Your task to perform on an android device: snooze an email in the gmail app Image 0: 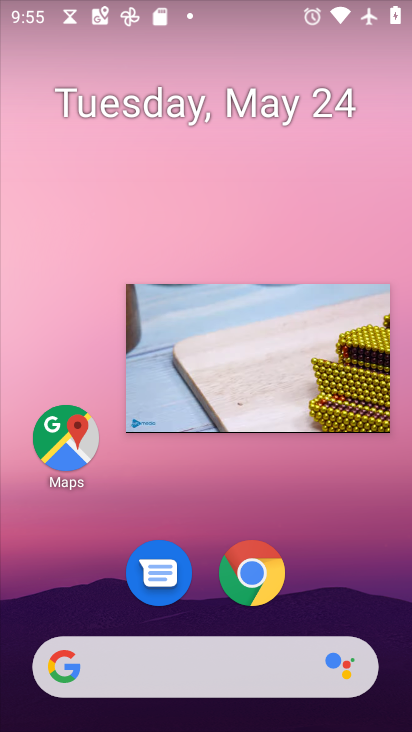
Step 0: click (359, 304)
Your task to perform on an android device: snooze an email in the gmail app Image 1: 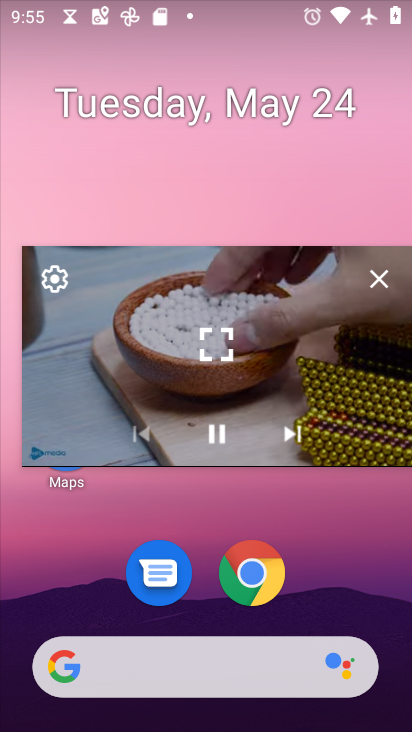
Step 1: click (374, 310)
Your task to perform on an android device: snooze an email in the gmail app Image 2: 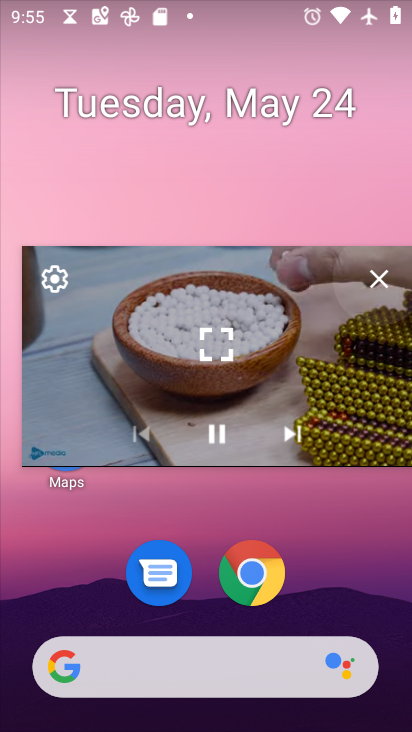
Step 2: click (366, 273)
Your task to perform on an android device: snooze an email in the gmail app Image 3: 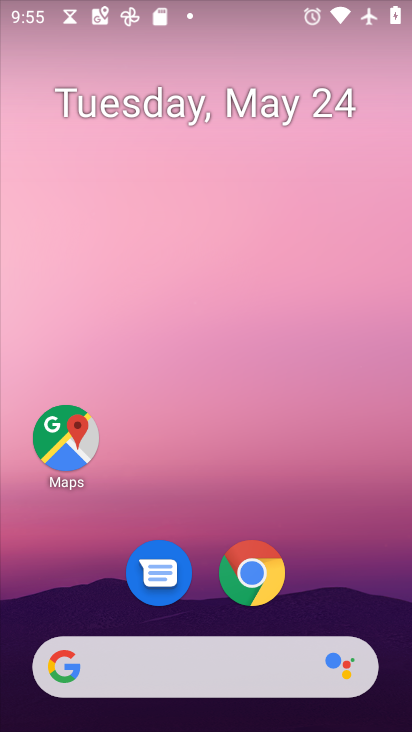
Step 3: drag from (349, 575) to (326, 86)
Your task to perform on an android device: snooze an email in the gmail app Image 4: 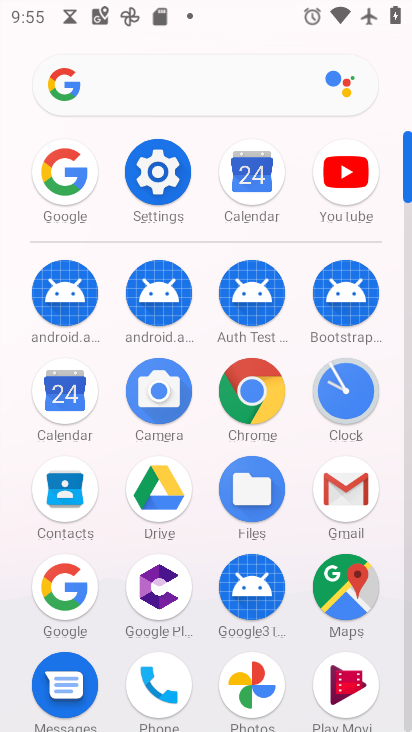
Step 4: click (357, 484)
Your task to perform on an android device: snooze an email in the gmail app Image 5: 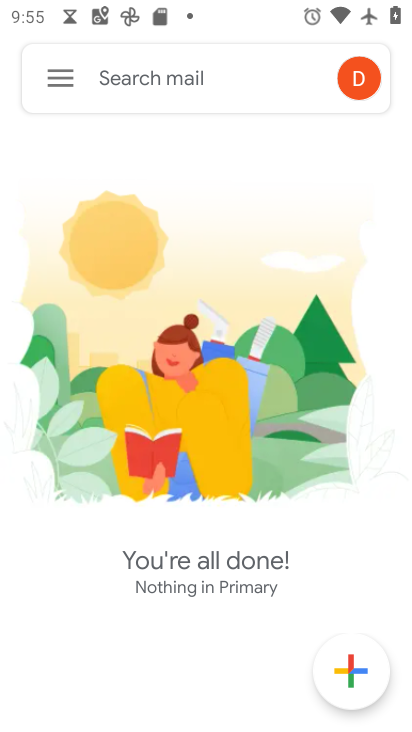
Step 5: click (62, 87)
Your task to perform on an android device: snooze an email in the gmail app Image 6: 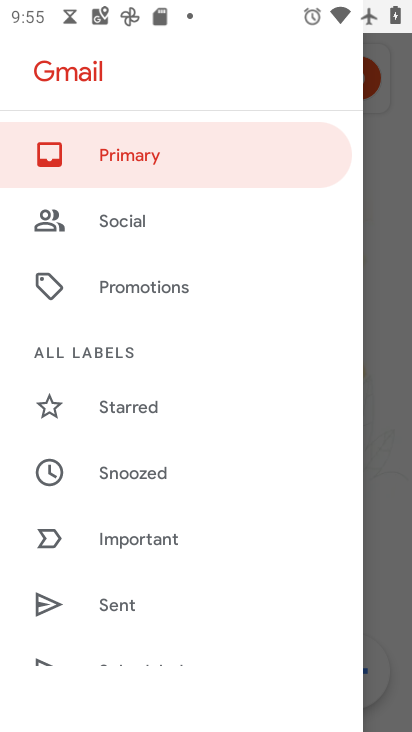
Step 6: drag from (178, 601) to (147, 164)
Your task to perform on an android device: snooze an email in the gmail app Image 7: 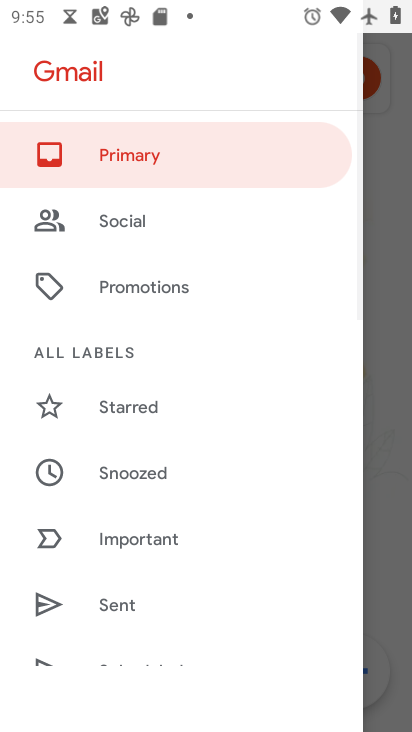
Step 7: drag from (176, 592) to (172, 65)
Your task to perform on an android device: snooze an email in the gmail app Image 8: 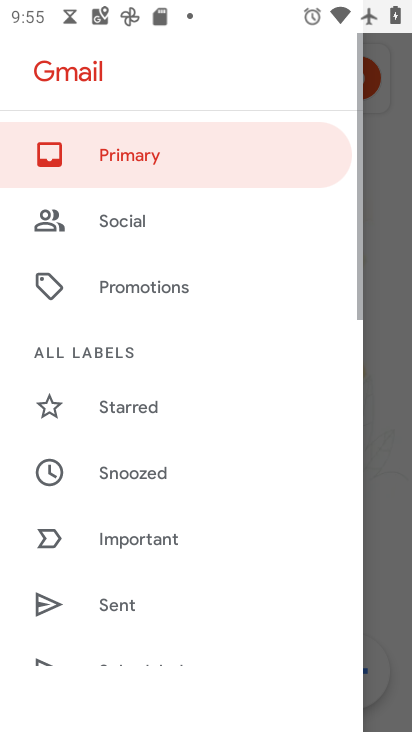
Step 8: drag from (158, 586) to (125, 70)
Your task to perform on an android device: snooze an email in the gmail app Image 9: 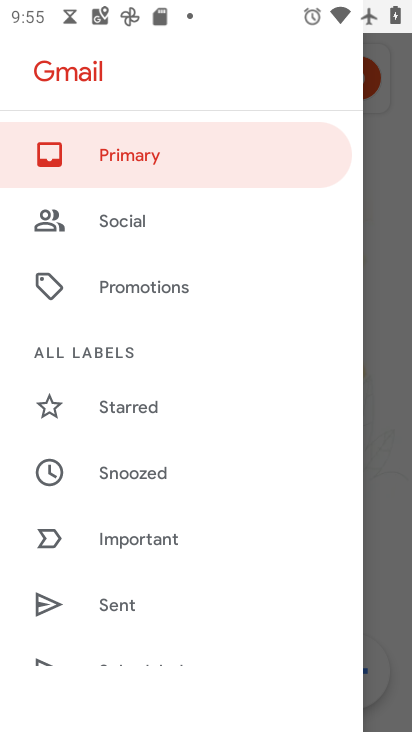
Step 9: drag from (100, 616) to (60, 175)
Your task to perform on an android device: snooze an email in the gmail app Image 10: 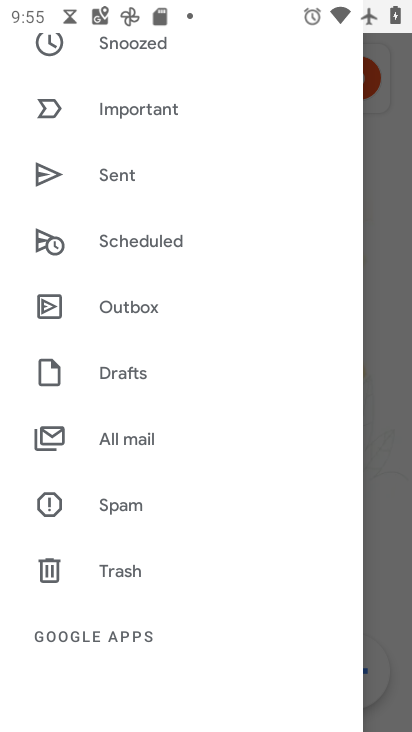
Step 10: drag from (108, 635) to (125, 158)
Your task to perform on an android device: snooze an email in the gmail app Image 11: 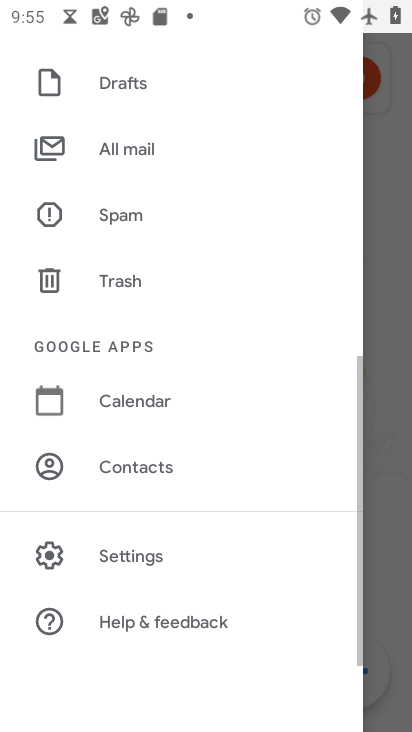
Step 11: click (125, 558)
Your task to perform on an android device: snooze an email in the gmail app Image 12: 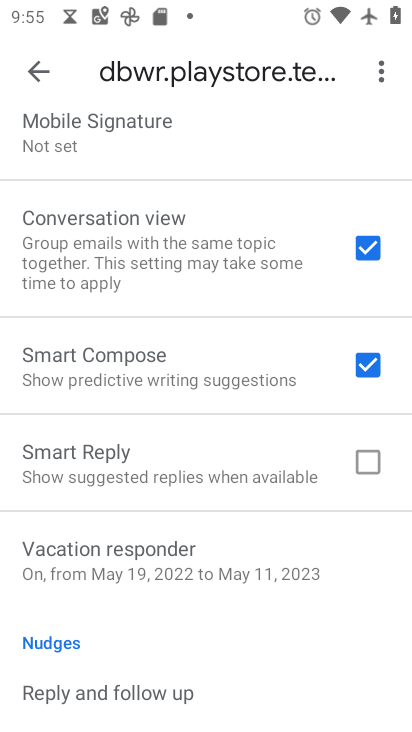
Step 12: click (59, 67)
Your task to perform on an android device: snooze an email in the gmail app Image 13: 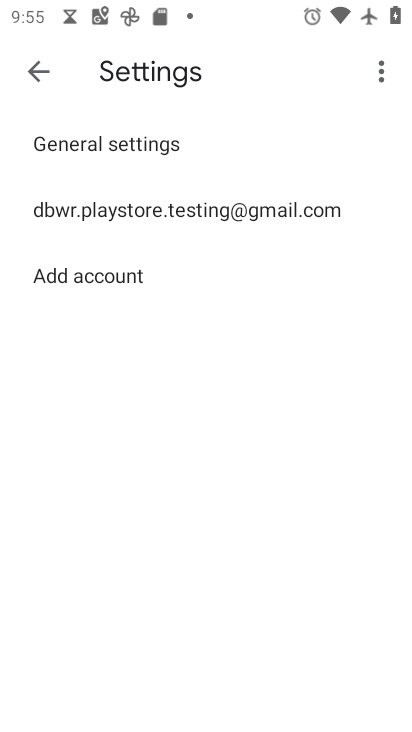
Step 13: click (97, 219)
Your task to perform on an android device: snooze an email in the gmail app Image 14: 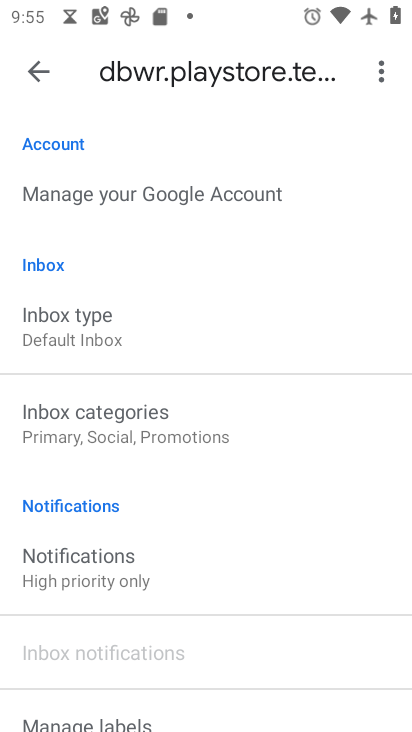
Step 14: click (13, 35)
Your task to perform on an android device: snooze an email in the gmail app Image 15: 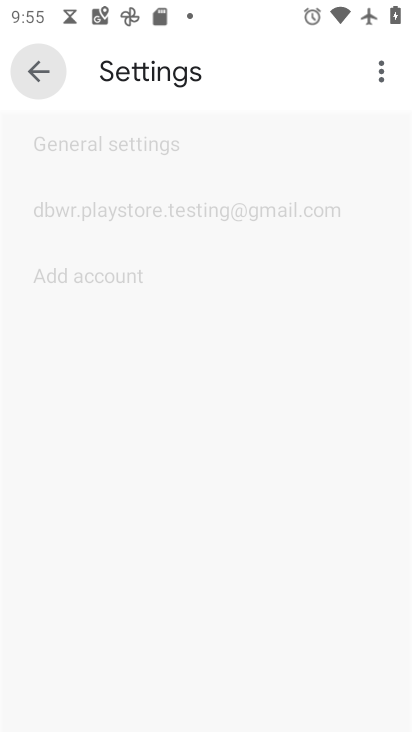
Step 15: click (47, 73)
Your task to perform on an android device: snooze an email in the gmail app Image 16: 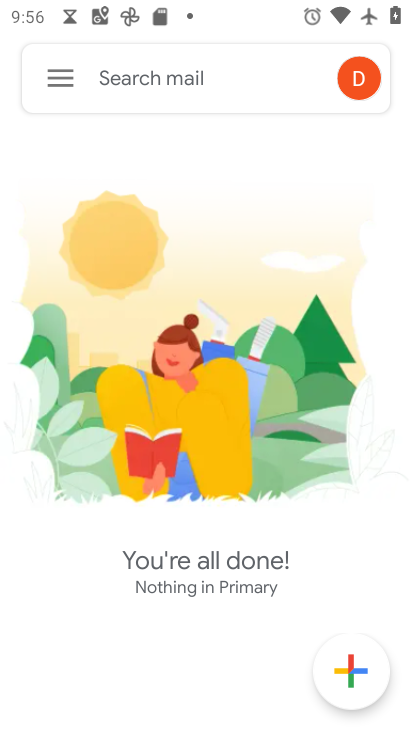
Step 16: click (49, 84)
Your task to perform on an android device: snooze an email in the gmail app Image 17: 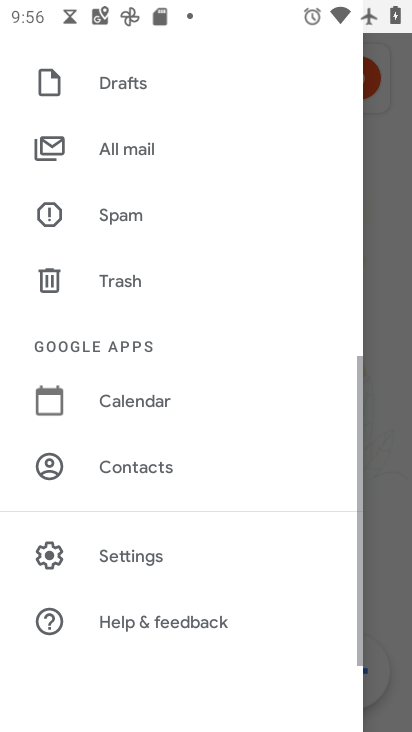
Step 17: drag from (201, 205) to (146, 713)
Your task to perform on an android device: snooze an email in the gmail app Image 18: 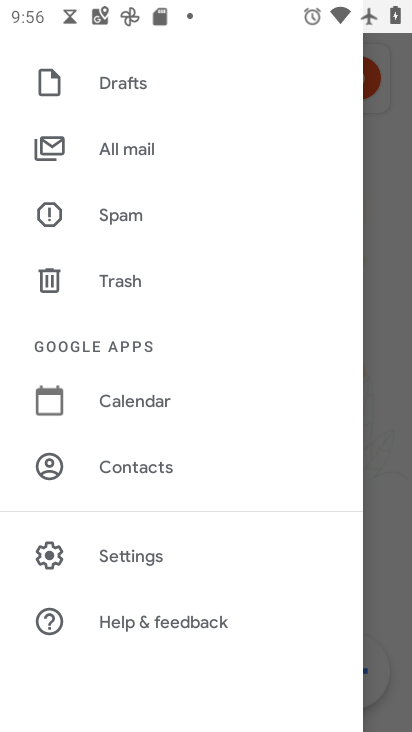
Step 18: drag from (135, 239) to (150, 659)
Your task to perform on an android device: snooze an email in the gmail app Image 19: 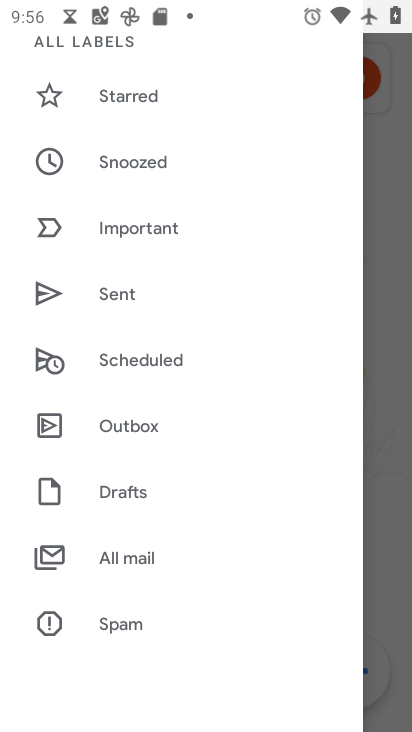
Step 19: drag from (137, 230) to (191, 673)
Your task to perform on an android device: snooze an email in the gmail app Image 20: 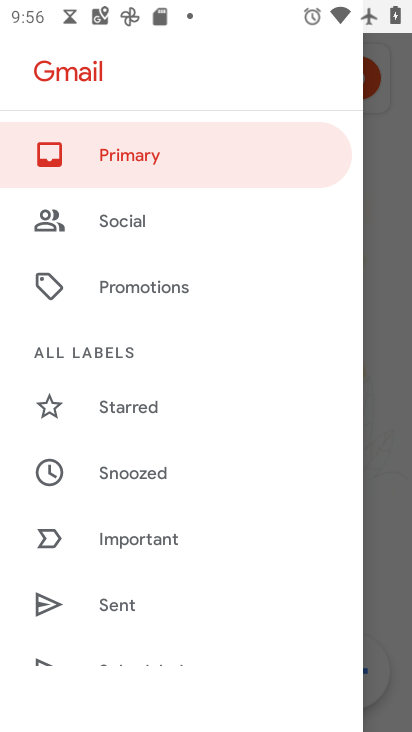
Step 20: drag from (160, 621) to (182, 199)
Your task to perform on an android device: snooze an email in the gmail app Image 21: 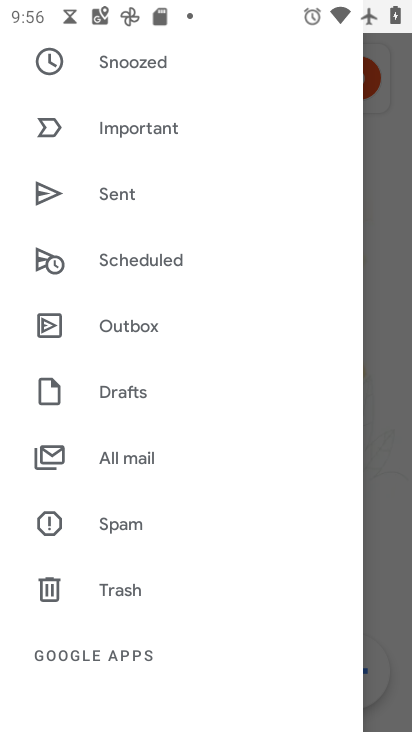
Step 21: click (136, 461)
Your task to perform on an android device: snooze an email in the gmail app Image 22: 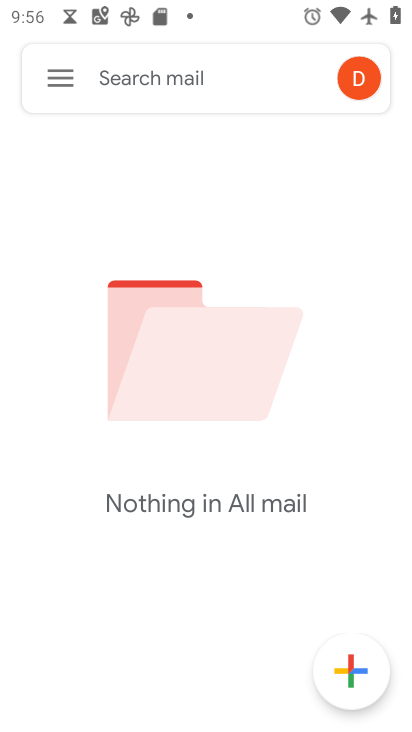
Step 22: click (53, 88)
Your task to perform on an android device: snooze an email in the gmail app Image 23: 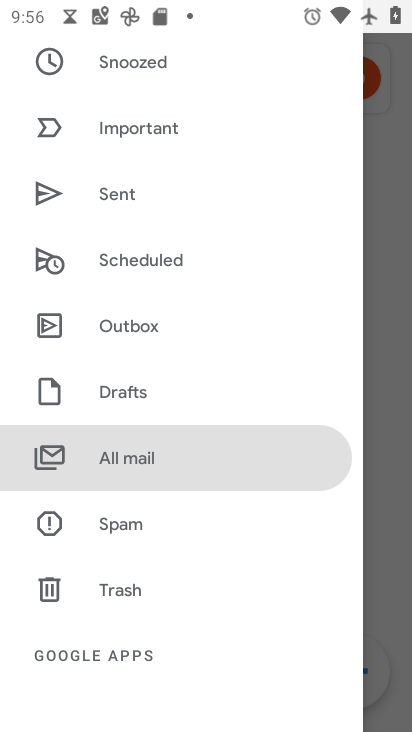
Step 23: task complete